Your task to perform on an android device: Search for the best coffee tables on Crate & Barrel Image 0: 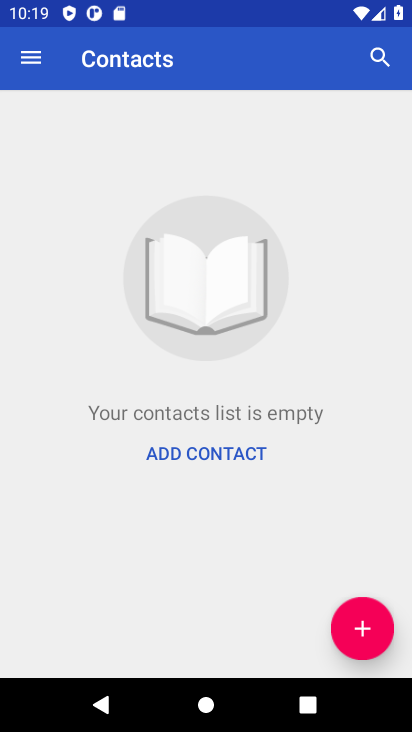
Step 0: press home button
Your task to perform on an android device: Search for the best coffee tables on Crate & Barrel Image 1: 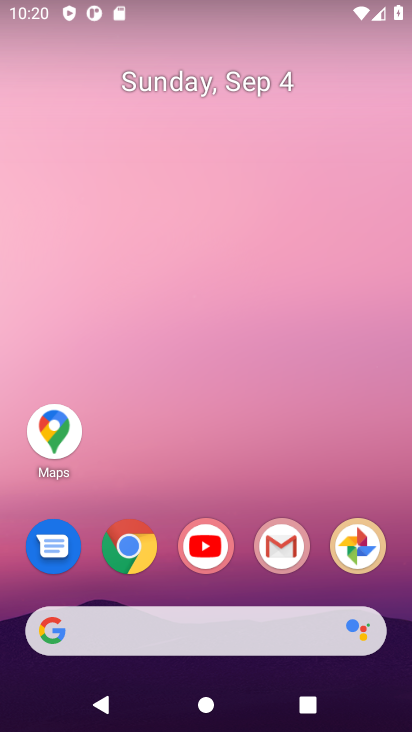
Step 1: click (136, 552)
Your task to perform on an android device: Search for the best coffee tables on Crate & Barrel Image 2: 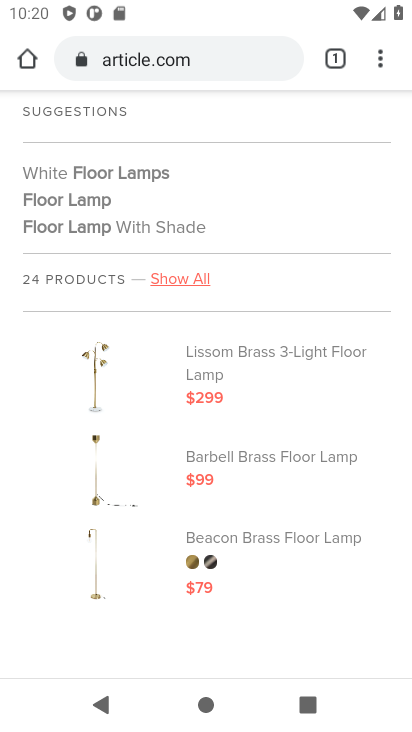
Step 2: click (199, 63)
Your task to perform on an android device: Search for the best coffee tables on Crate & Barrel Image 3: 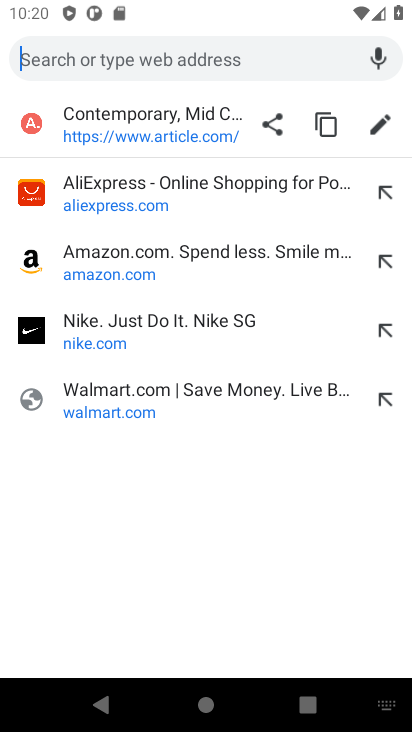
Step 3: type "Crate & Barrel"
Your task to perform on an android device: Search for the best coffee tables on Crate & Barrel Image 4: 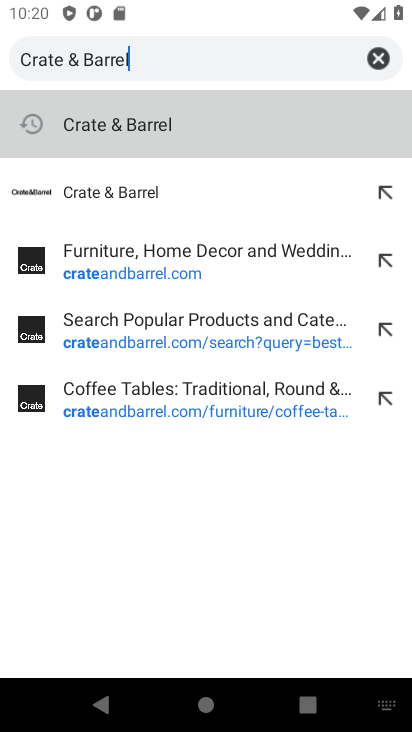
Step 4: click (124, 124)
Your task to perform on an android device: Search for the best coffee tables on Crate & Barrel Image 5: 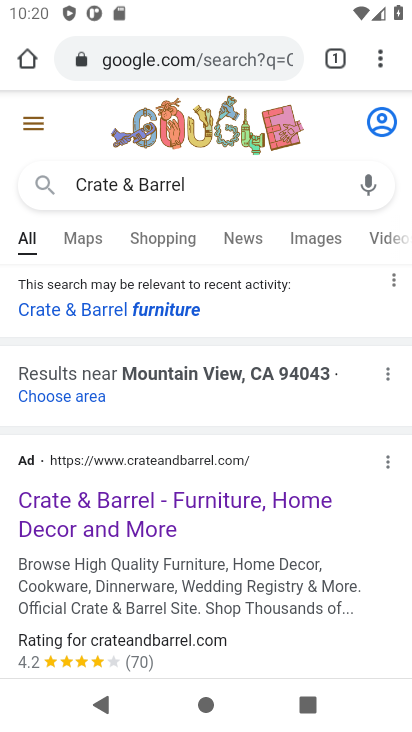
Step 5: drag from (216, 334) to (212, 163)
Your task to perform on an android device: Search for the best coffee tables on Crate & Barrel Image 6: 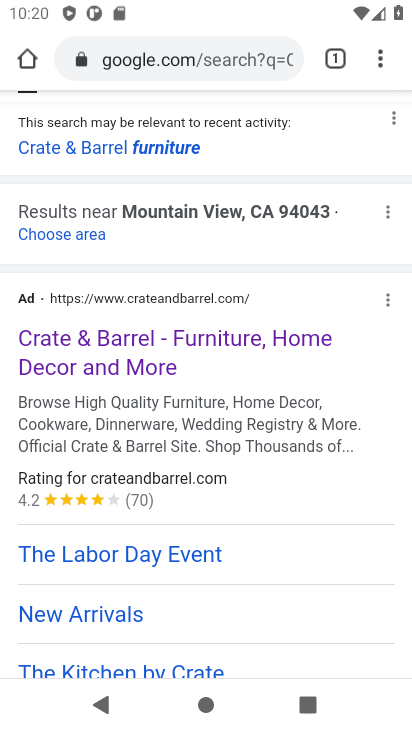
Step 6: click (87, 340)
Your task to perform on an android device: Search for the best coffee tables on Crate & Barrel Image 7: 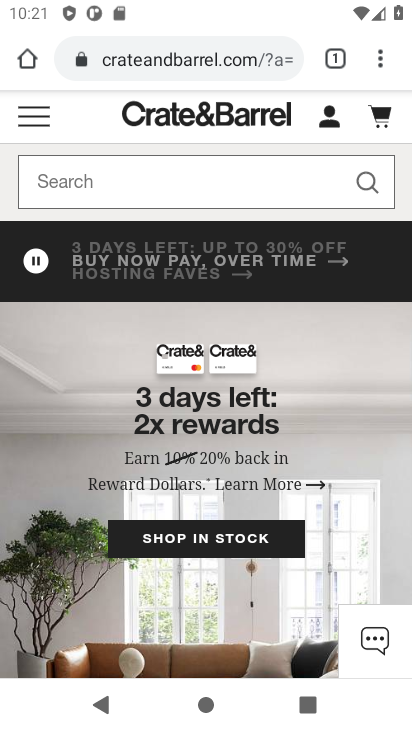
Step 7: click (109, 176)
Your task to perform on an android device: Search for the best coffee tables on Crate & Barrel Image 8: 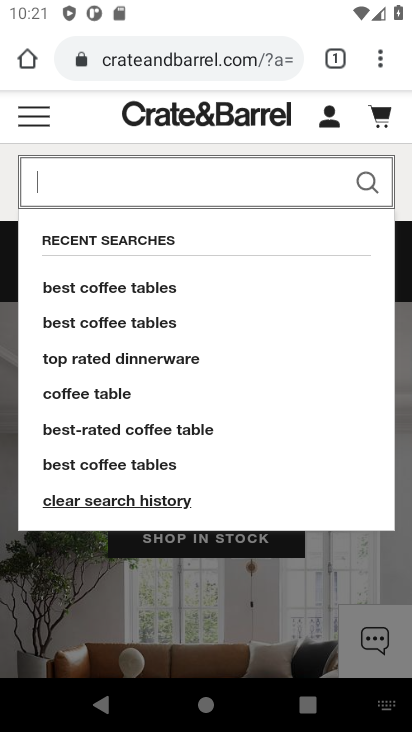
Step 8: type "best coffee tables"
Your task to perform on an android device: Search for the best coffee tables on Crate & Barrel Image 9: 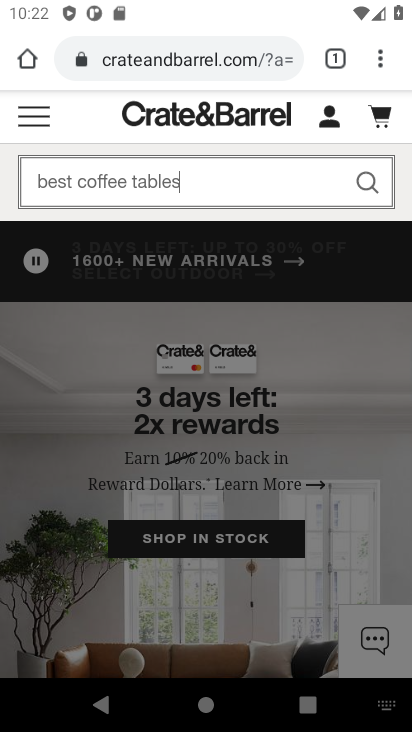
Step 9: click (364, 179)
Your task to perform on an android device: Search for the best coffee tables on Crate & Barrel Image 10: 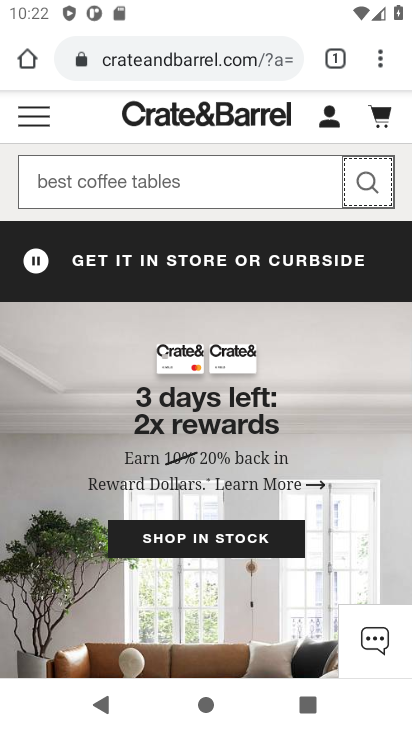
Step 10: drag from (326, 525) to (325, 176)
Your task to perform on an android device: Search for the best coffee tables on Crate & Barrel Image 11: 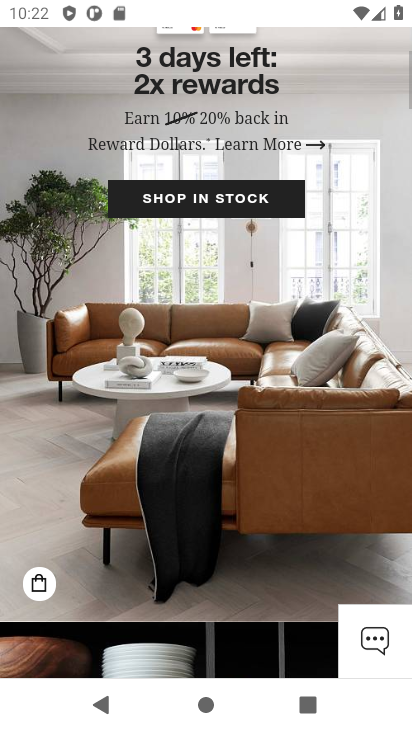
Step 11: drag from (284, 457) to (288, 94)
Your task to perform on an android device: Search for the best coffee tables on Crate & Barrel Image 12: 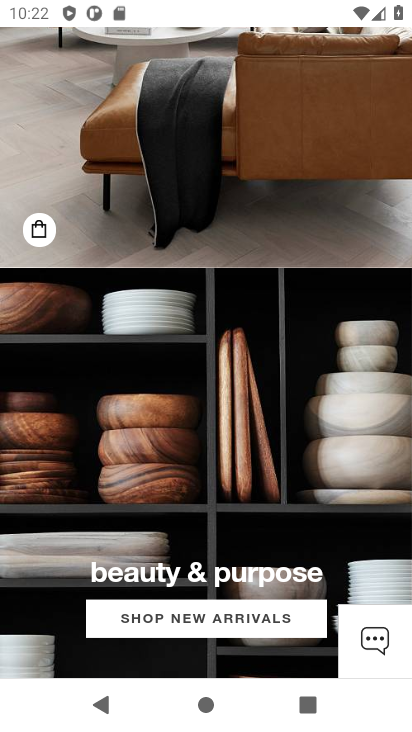
Step 12: drag from (230, 244) to (233, 188)
Your task to perform on an android device: Search for the best coffee tables on Crate & Barrel Image 13: 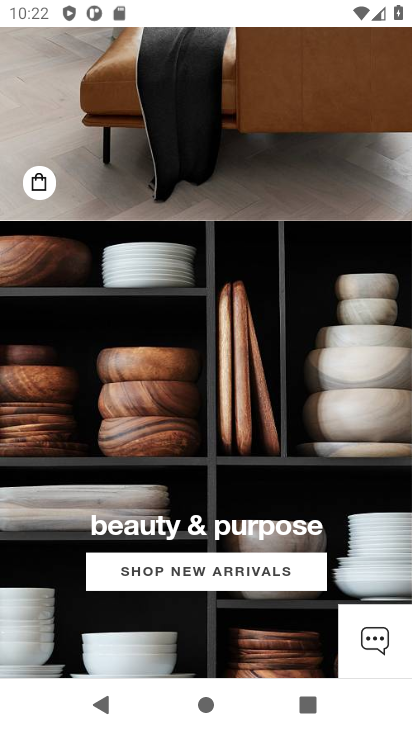
Step 13: drag from (233, 188) to (243, 648)
Your task to perform on an android device: Search for the best coffee tables on Crate & Barrel Image 14: 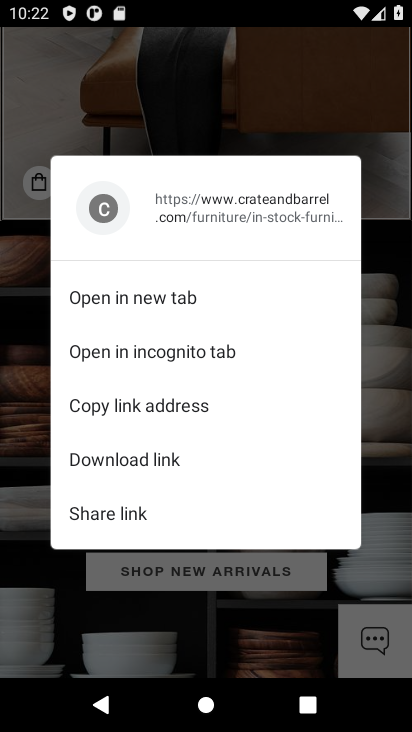
Step 14: click (349, 138)
Your task to perform on an android device: Search for the best coffee tables on Crate & Barrel Image 15: 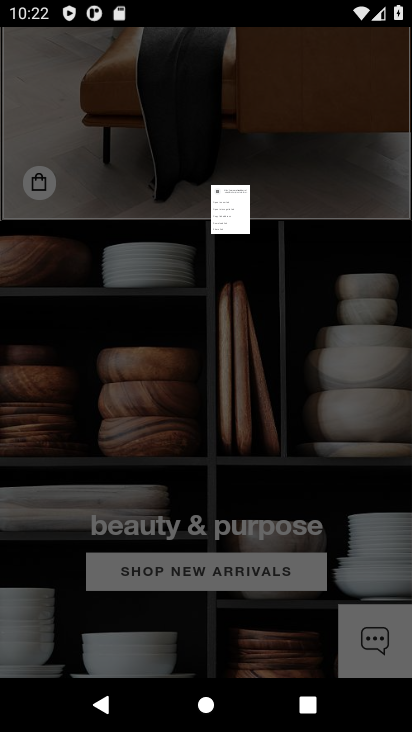
Step 15: drag from (340, 405) to (335, 544)
Your task to perform on an android device: Search for the best coffee tables on Crate & Barrel Image 16: 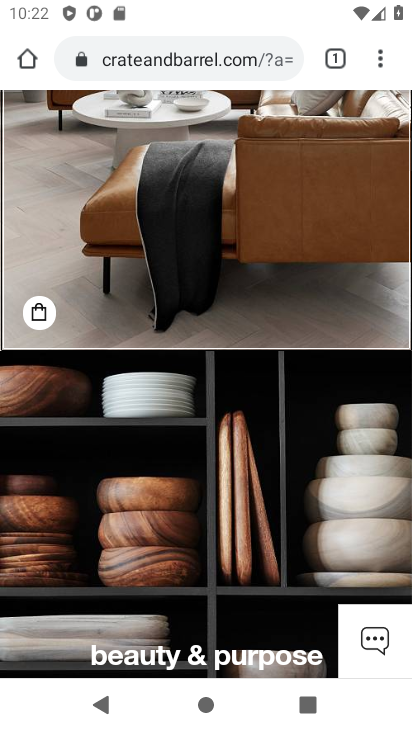
Step 16: drag from (295, 537) to (295, 573)
Your task to perform on an android device: Search for the best coffee tables on Crate & Barrel Image 17: 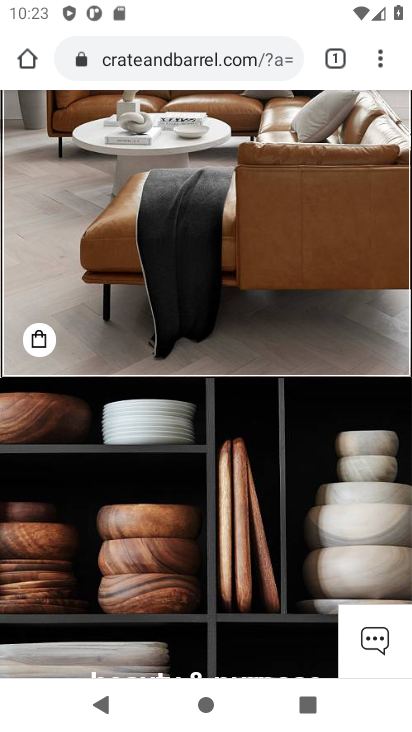
Step 17: drag from (231, 249) to (250, 599)
Your task to perform on an android device: Search for the best coffee tables on Crate & Barrel Image 18: 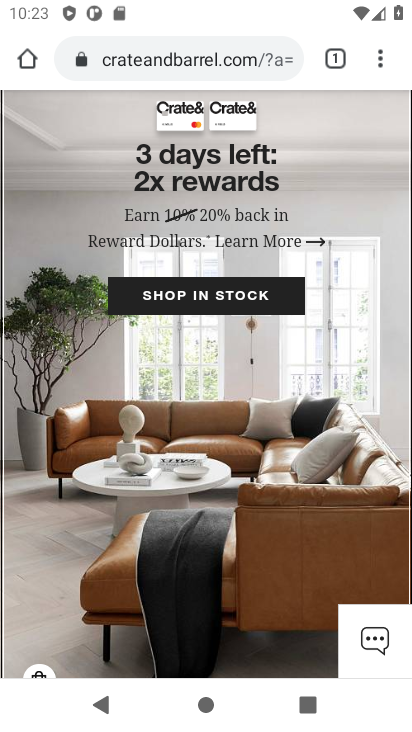
Step 18: click (319, 423)
Your task to perform on an android device: Search for the best coffee tables on Crate & Barrel Image 19: 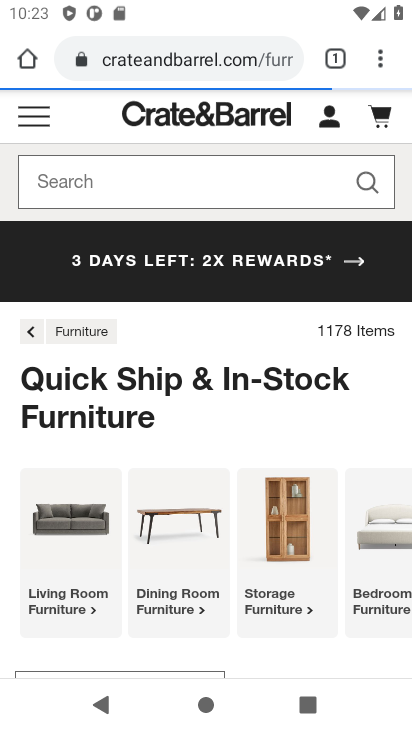
Step 19: click (218, 184)
Your task to perform on an android device: Search for the best coffee tables on Crate & Barrel Image 20: 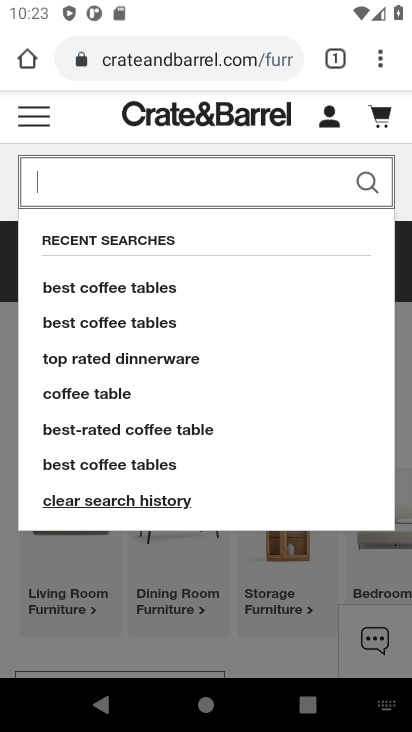
Step 20: type "best coffee tables"
Your task to perform on an android device: Search for the best coffee tables on Crate & Barrel Image 21: 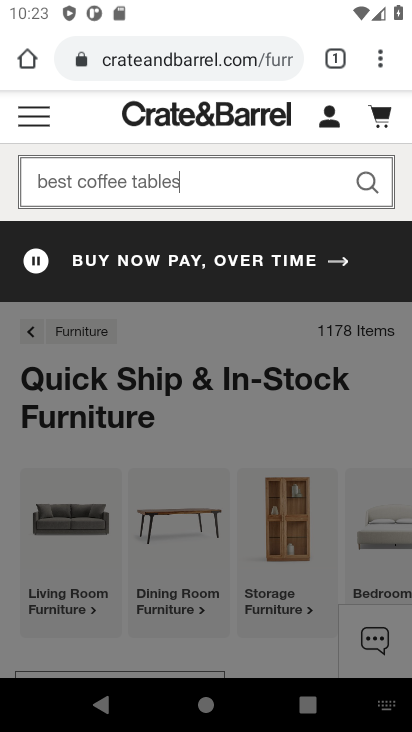
Step 21: click (375, 188)
Your task to perform on an android device: Search for the best coffee tables on Crate & Barrel Image 22: 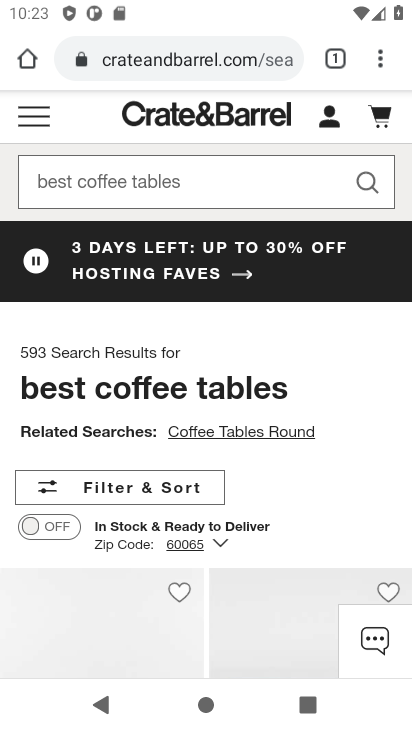
Step 22: task complete